Your task to perform on an android device: Open the downloads Image 0: 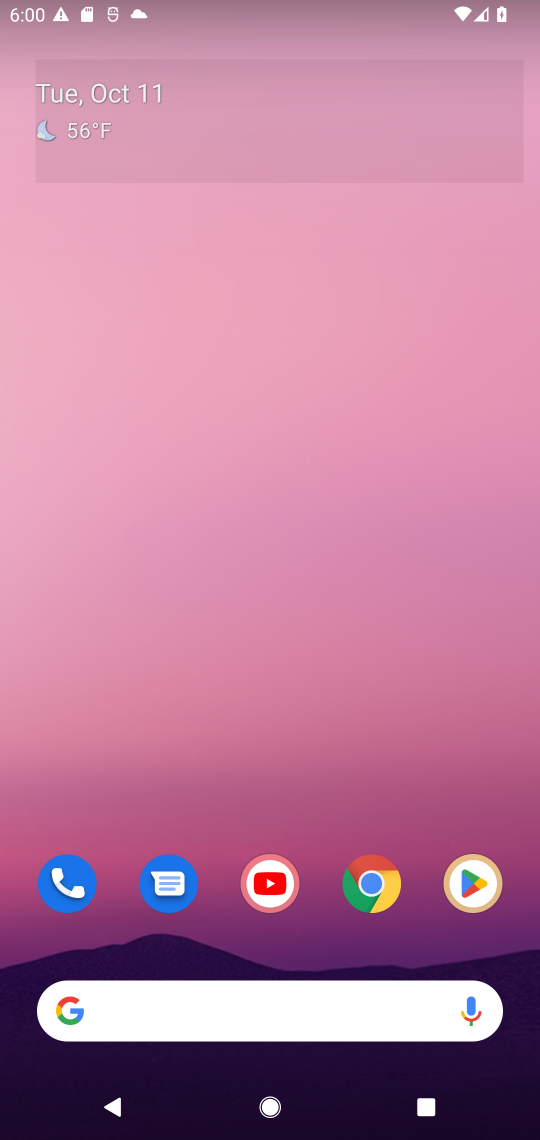
Step 0: drag from (381, 517) to (390, 195)
Your task to perform on an android device: Open the downloads Image 1: 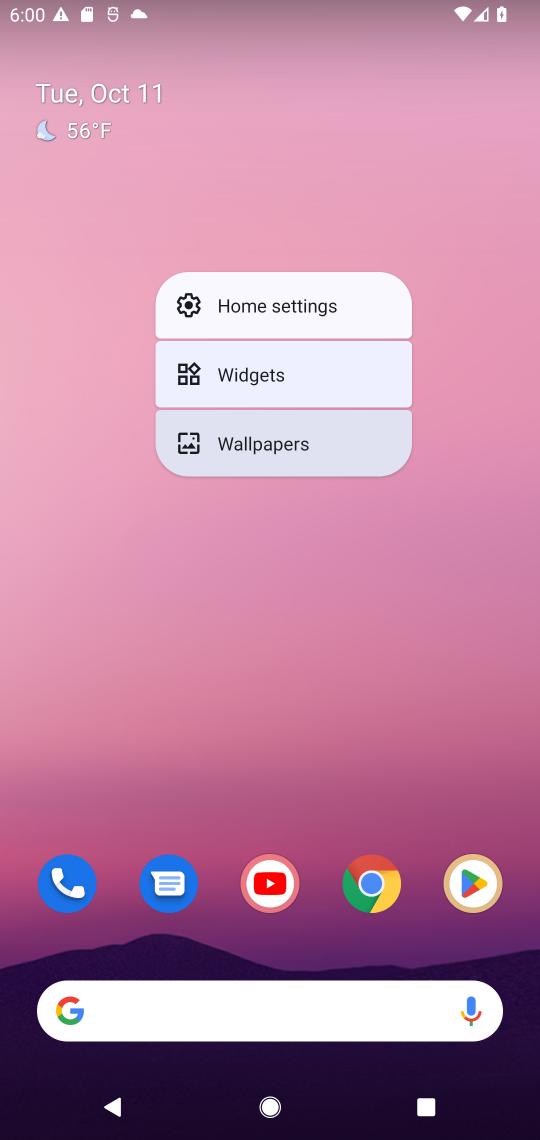
Step 1: click (305, 741)
Your task to perform on an android device: Open the downloads Image 2: 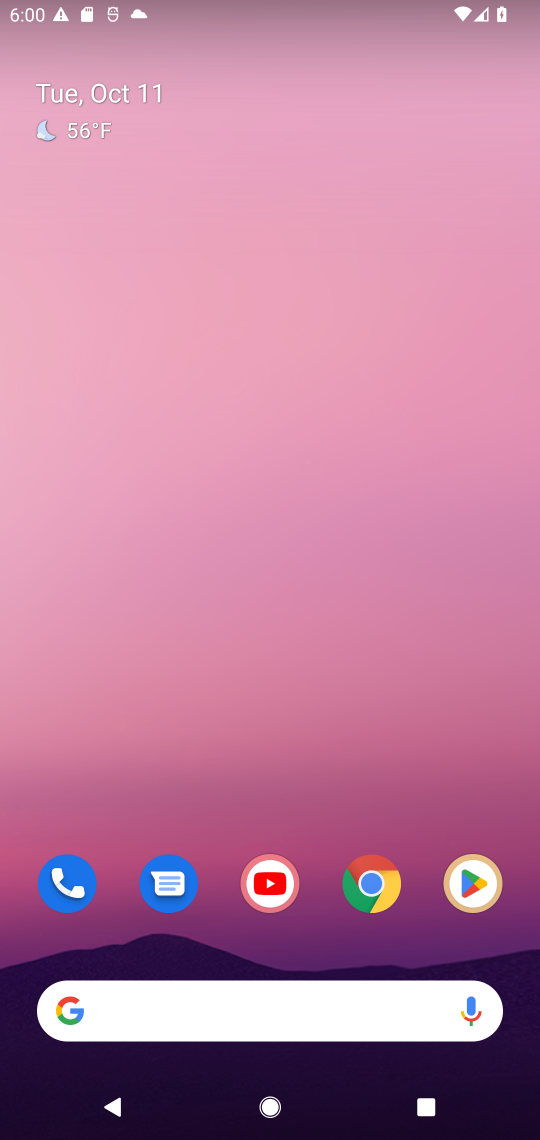
Step 2: drag from (313, 928) to (55, 22)
Your task to perform on an android device: Open the downloads Image 3: 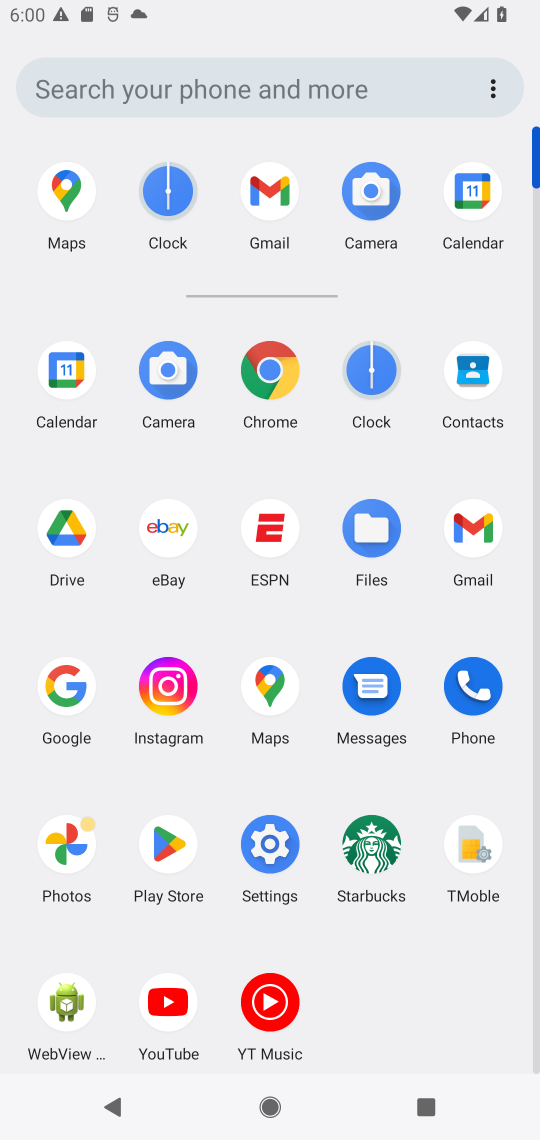
Step 3: click (265, 365)
Your task to perform on an android device: Open the downloads Image 4: 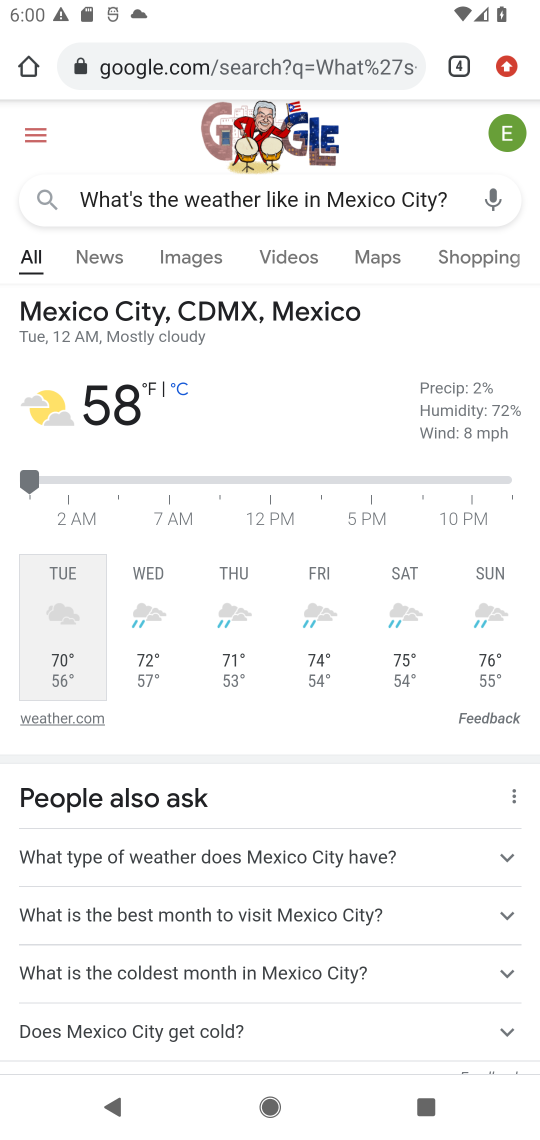
Step 4: task complete